Your task to perform on an android device: turn notification dots off Image 0: 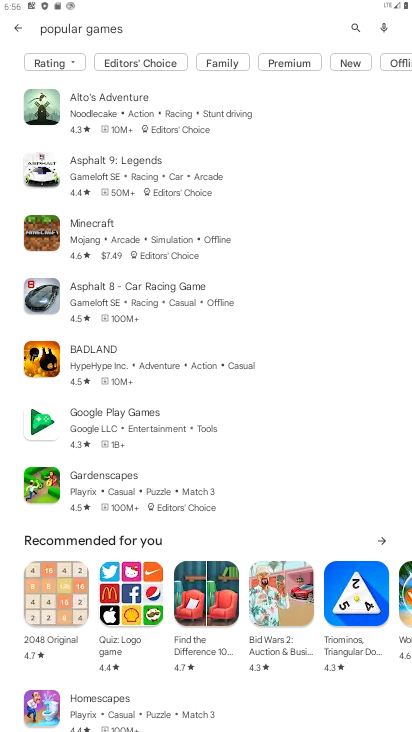
Step 0: press home button
Your task to perform on an android device: turn notification dots off Image 1: 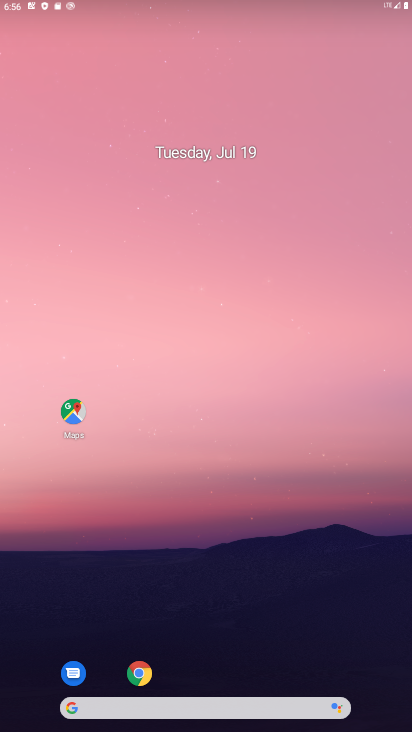
Step 1: drag from (370, 564) to (251, 2)
Your task to perform on an android device: turn notification dots off Image 2: 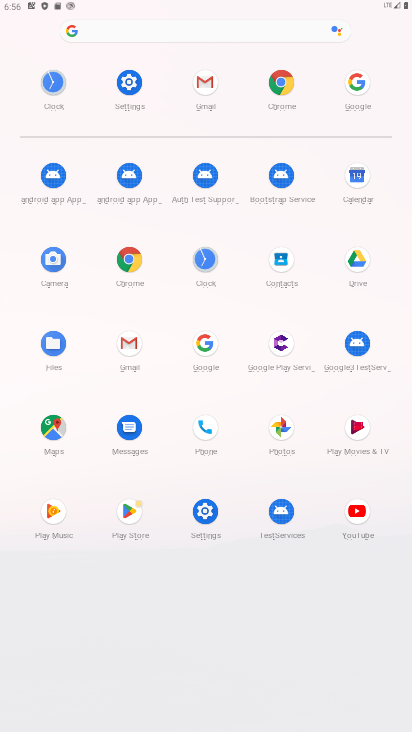
Step 2: click (127, 92)
Your task to perform on an android device: turn notification dots off Image 3: 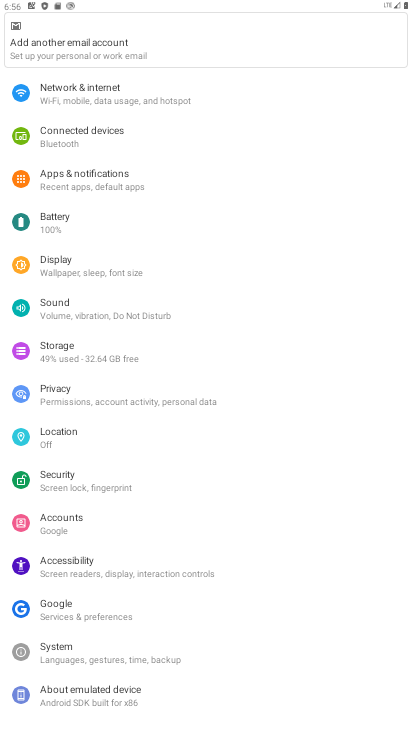
Step 3: click (104, 173)
Your task to perform on an android device: turn notification dots off Image 4: 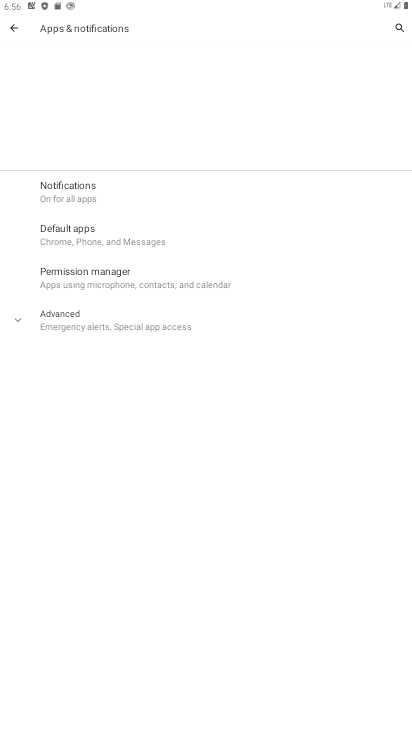
Step 4: click (107, 194)
Your task to perform on an android device: turn notification dots off Image 5: 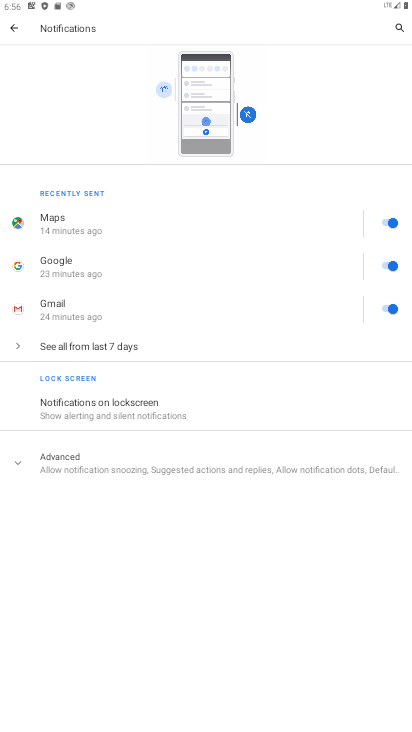
Step 5: click (53, 468)
Your task to perform on an android device: turn notification dots off Image 6: 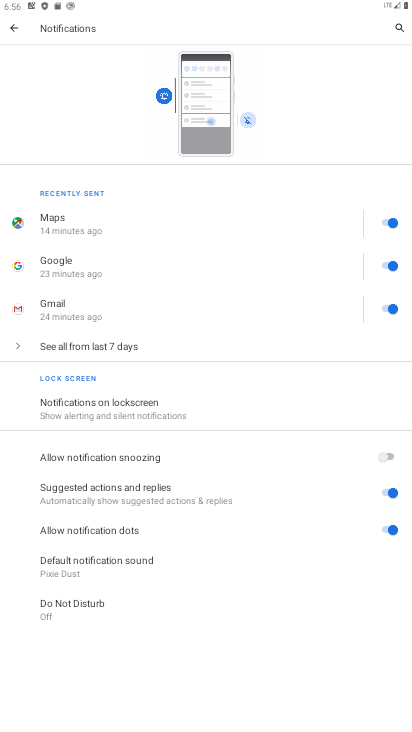
Step 6: click (120, 534)
Your task to perform on an android device: turn notification dots off Image 7: 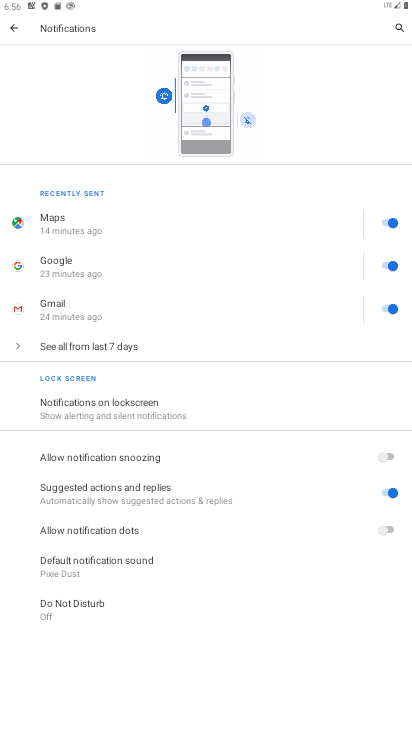
Step 7: task complete